Your task to perform on an android device: Open eBay Image 0: 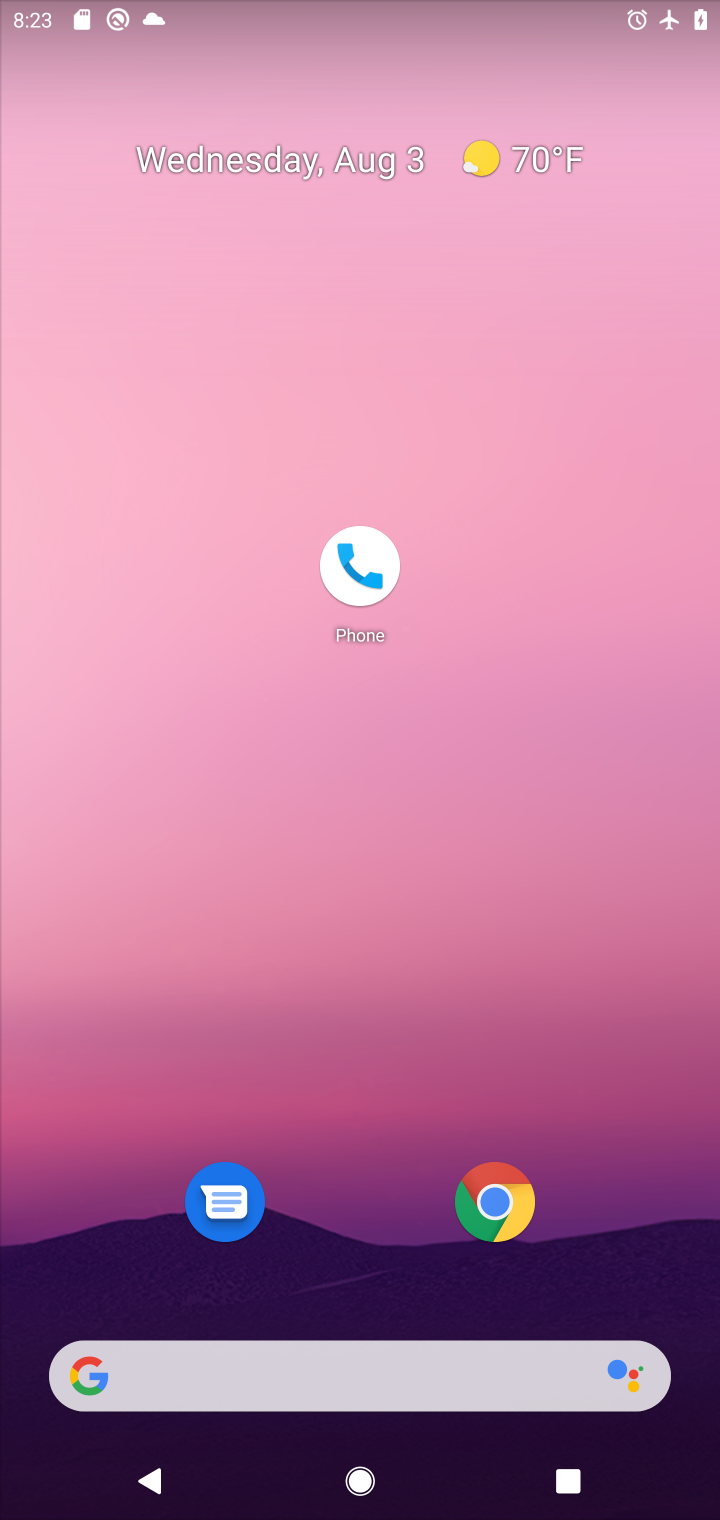
Step 0: click (495, 1203)
Your task to perform on an android device: Open eBay Image 1: 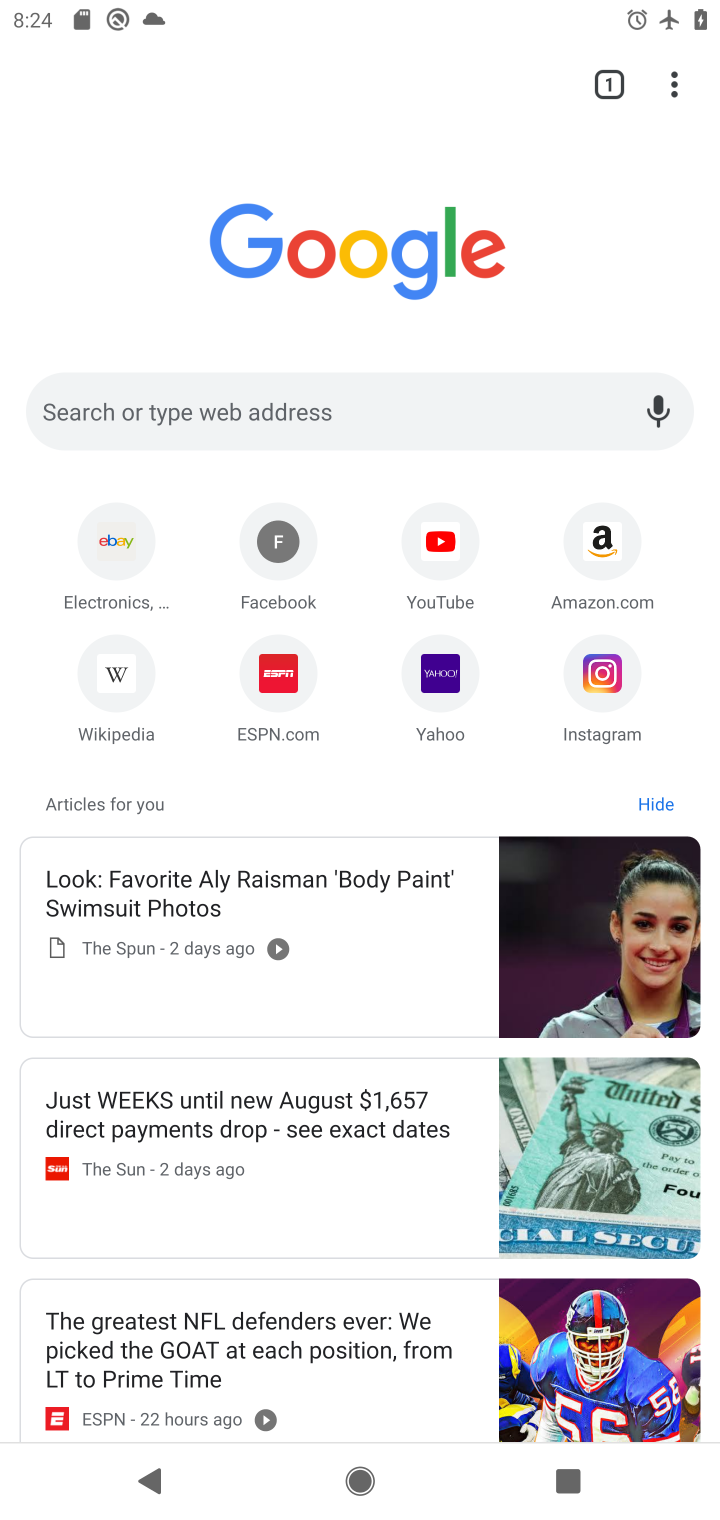
Step 1: click (125, 556)
Your task to perform on an android device: Open eBay Image 2: 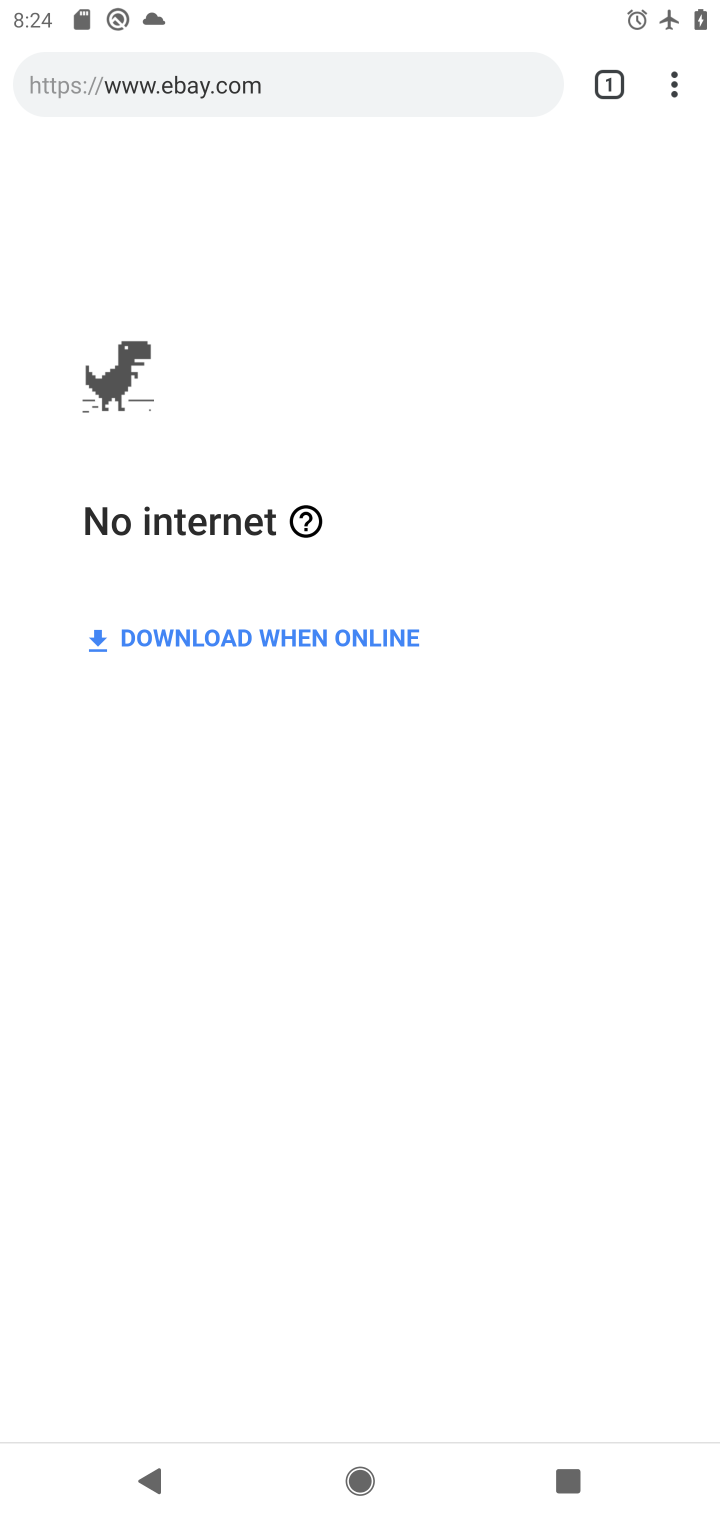
Step 2: task complete